Your task to perform on an android device: open a bookmark in the chrome app Image 0: 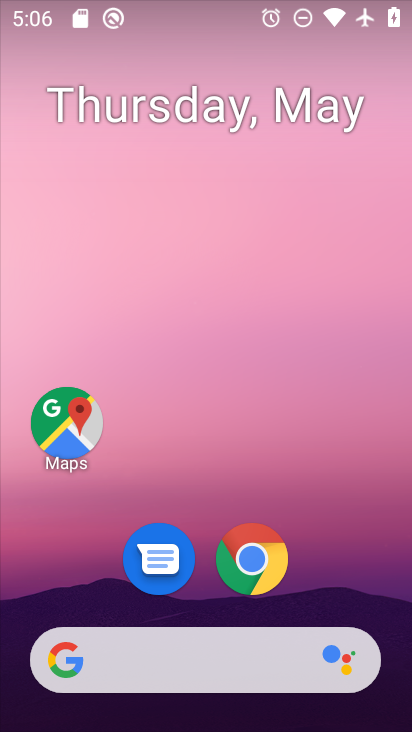
Step 0: click (280, 577)
Your task to perform on an android device: open a bookmark in the chrome app Image 1: 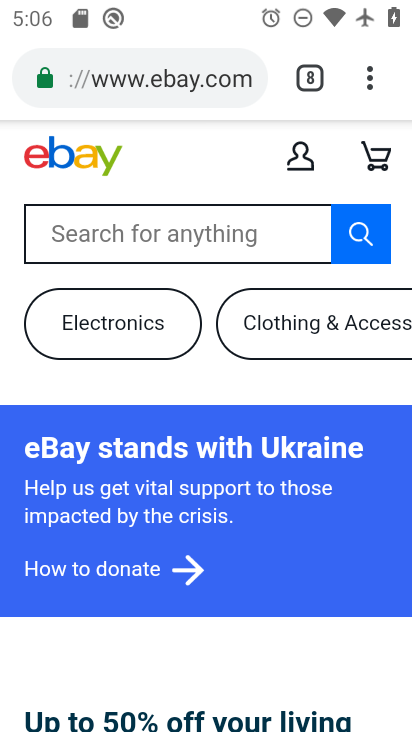
Step 1: click (369, 87)
Your task to perform on an android device: open a bookmark in the chrome app Image 2: 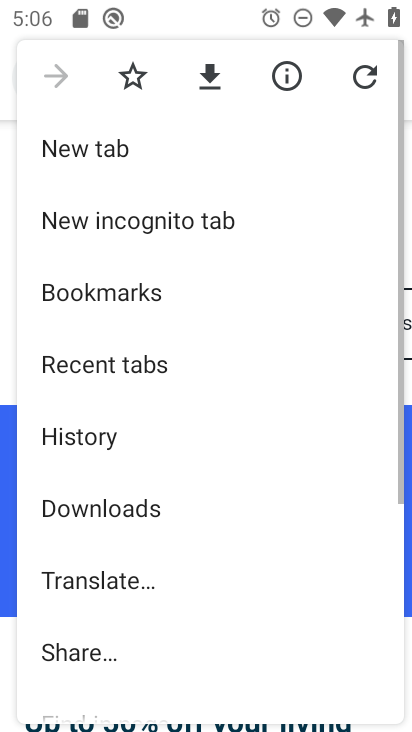
Step 2: click (148, 290)
Your task to perform on an android device: open a bookmark in the chrome app Image 3: 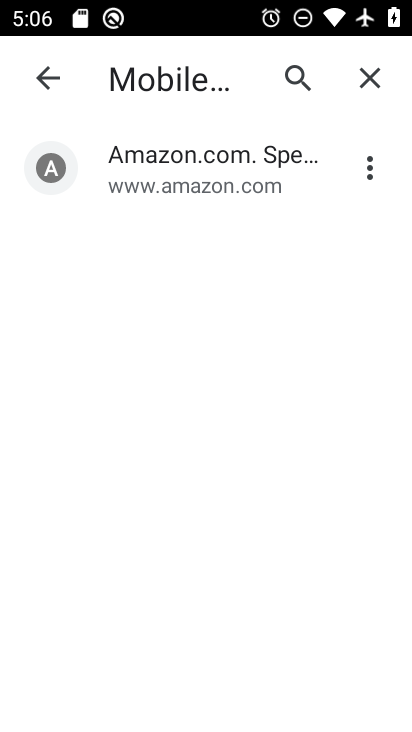
Step 3: click (199, 167)
Your task to perform on an android device: open a bookmark in the chrome app Image 4: 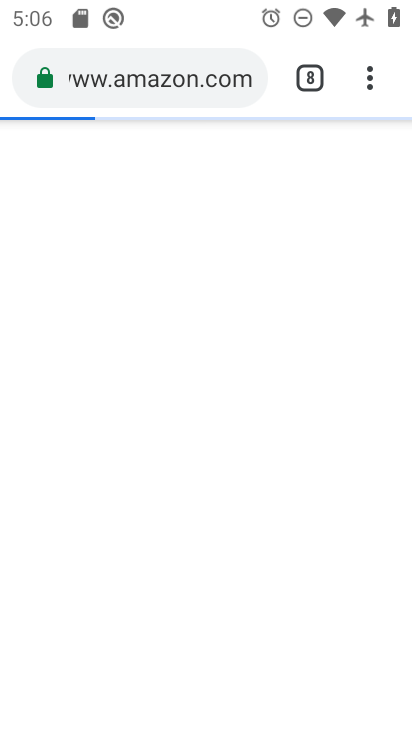
Step 4: task complete